Your task to perform on an android device: search for starred emails in the gmail app Image 0: 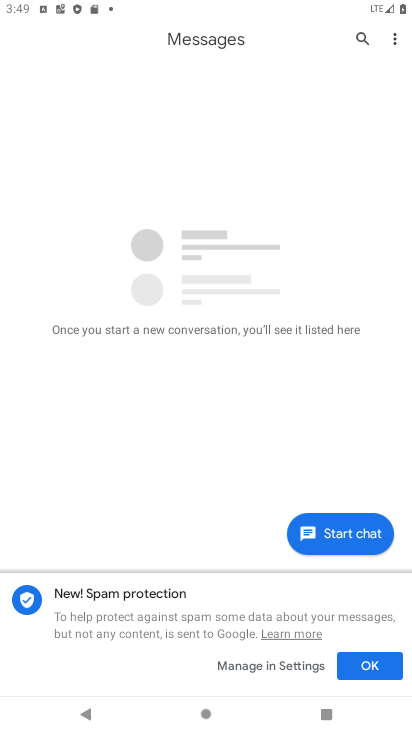
Step 0: press home button
Your task to perform on an android device: search for starred emails in the gmail app Image 1: 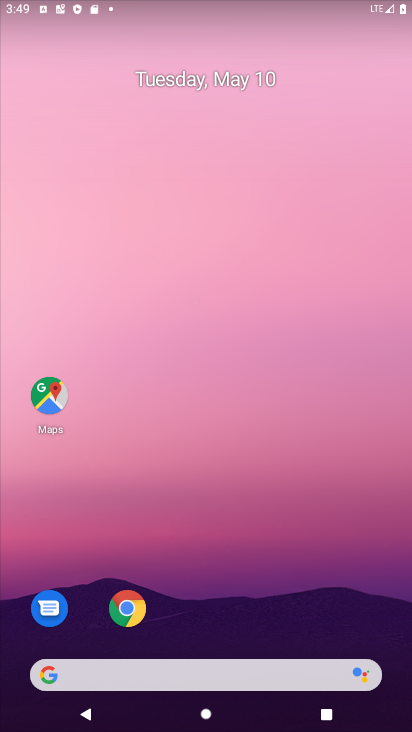
Step 1: drag from (358, 627) to (300, 118)
Your task to perform on an android device: search for starred emails in the gmail app Image 2: 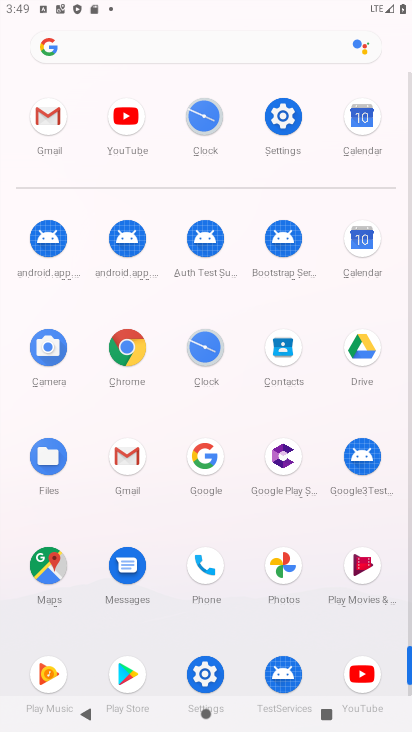
Step 2: click (126, 456)
Your task to perform on an android device: search for starred emails in the gmail app Image 3: 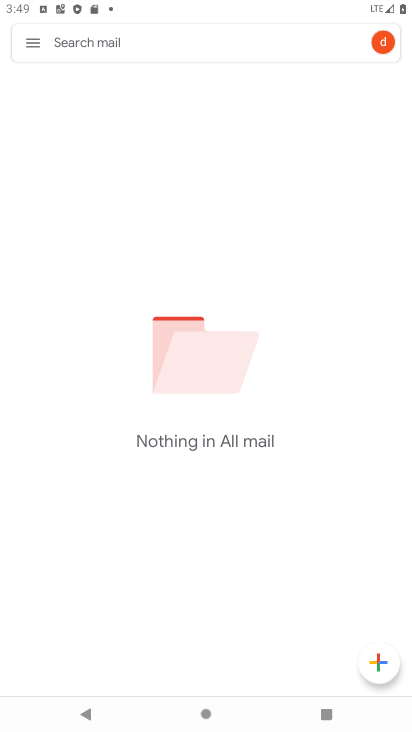
Step 3: click (32, 37)
Your task to perform on an android device: search for starred emails in the gmail app Image 4: 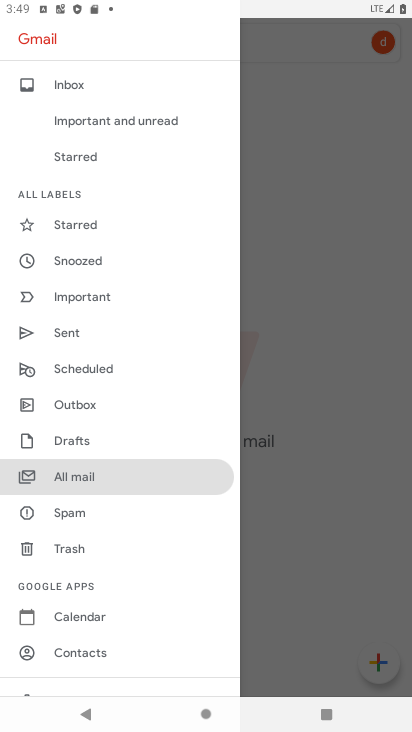
Step 4: click (65, 220)
Your task to perform on an android device: search for starred emails in the gmail app Image 5: 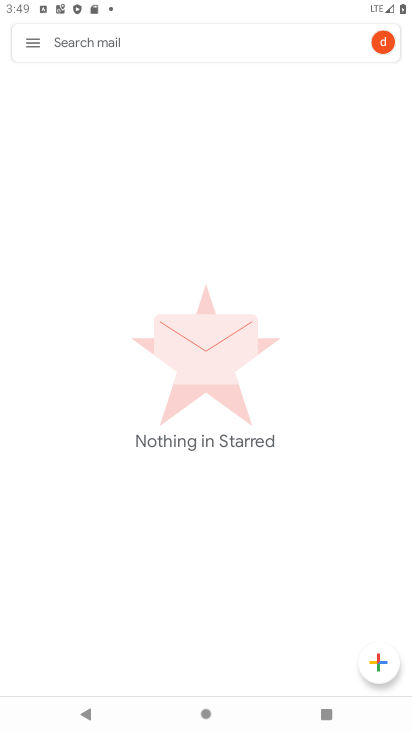
Step 5: task complete